Your task to perform on an android device: open app "Firefox Browser" (install if not already installed) Image 0: 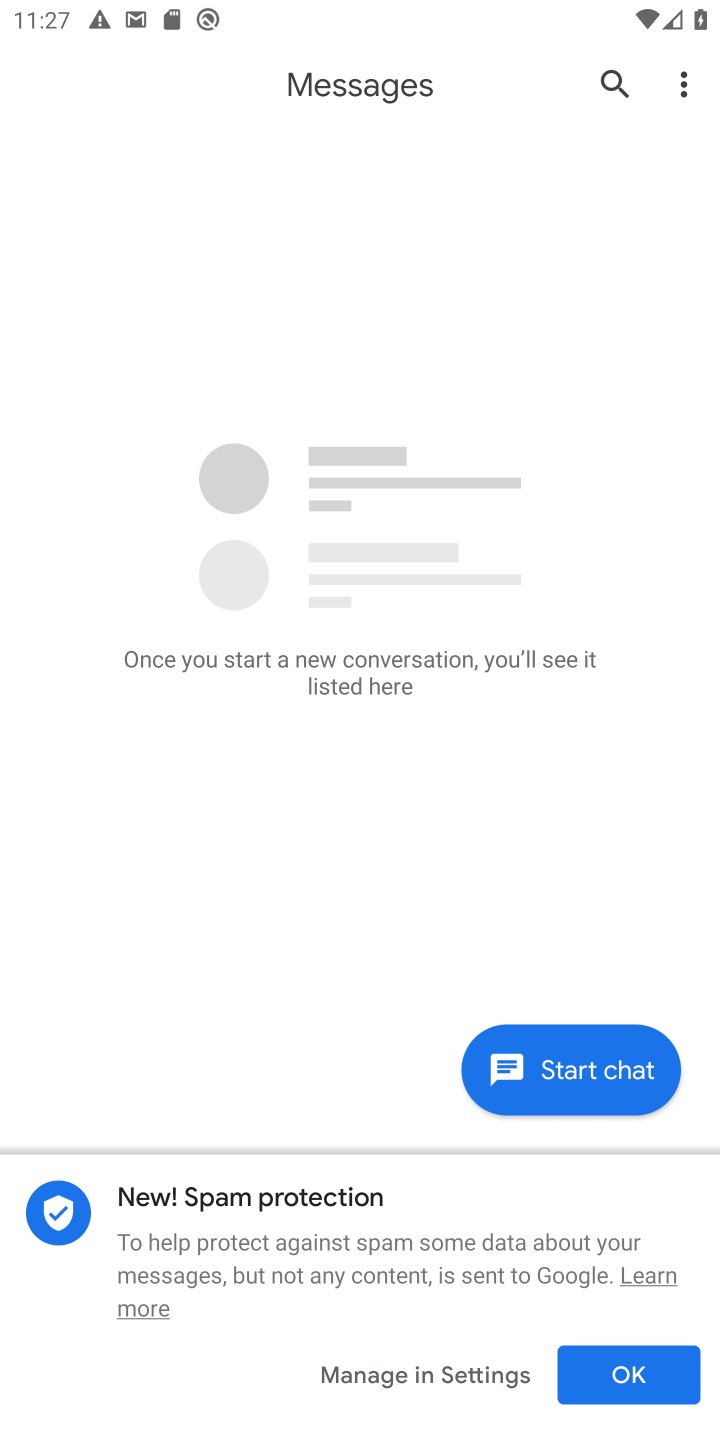
Step 0: press home button
Your task to perform on an android device: open app "Firefox Browser" (install if not already installed) Image 1: 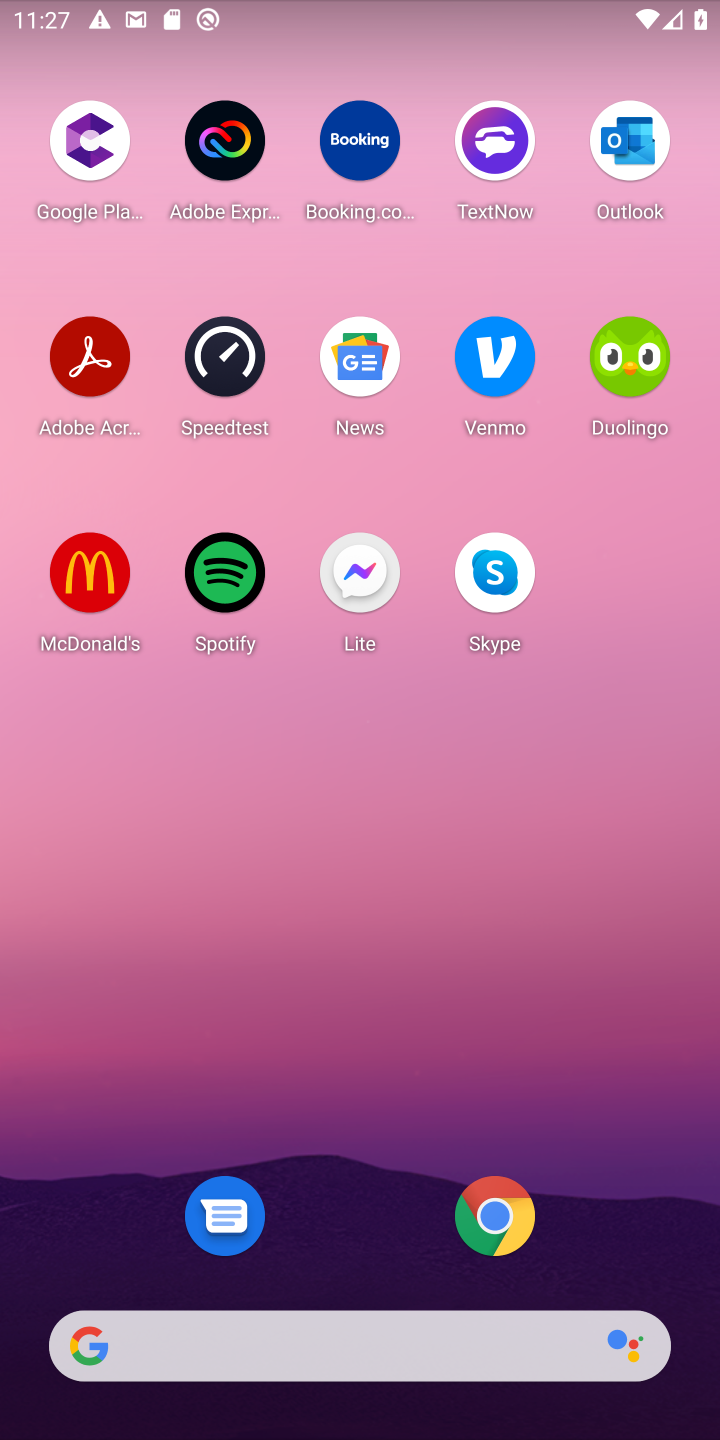
Step 1: drag from (261, 1339) to (321, 59)
Your task to perform on an android device: open app "Firefox Browser" (install if not already installed) Image 2: 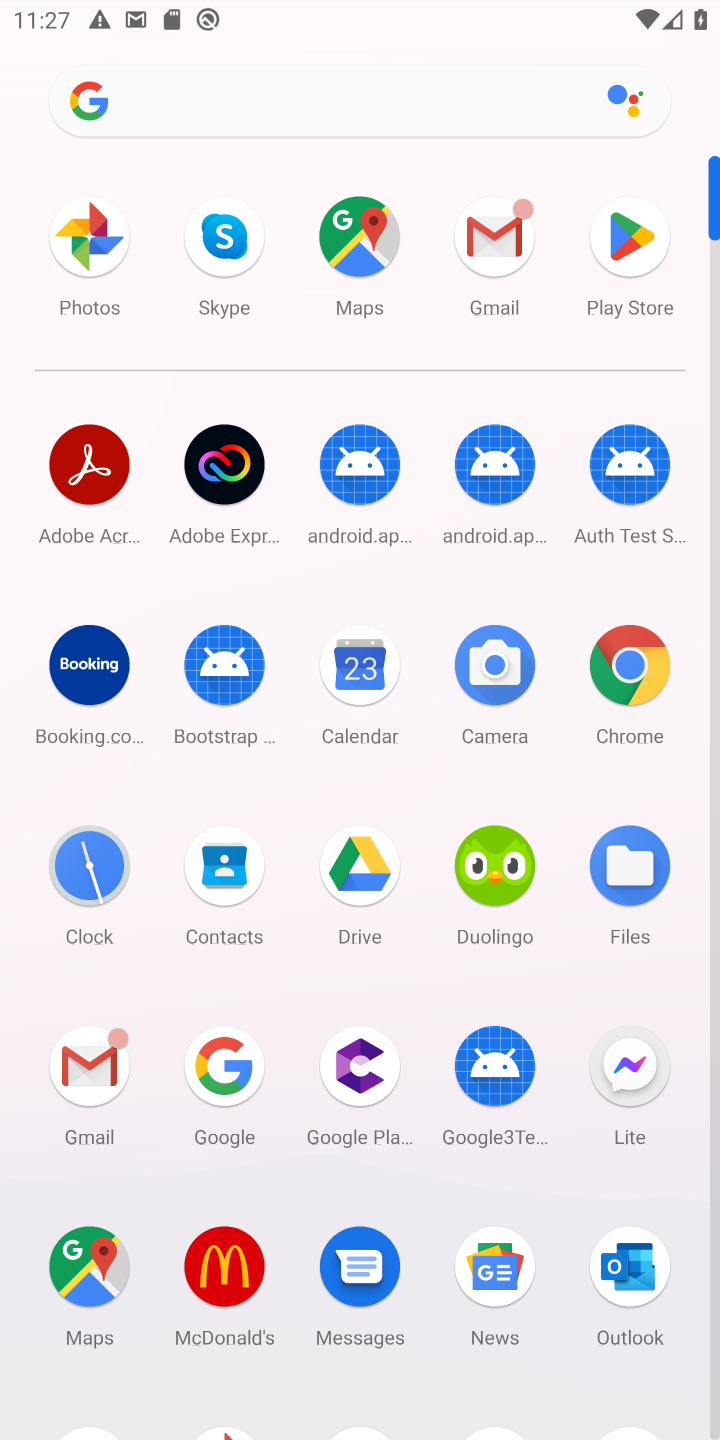
Step 2: click (633, 253)
Your task to perform on an android device: open app "Firefox Browser" (install if not already installed) Image 3: 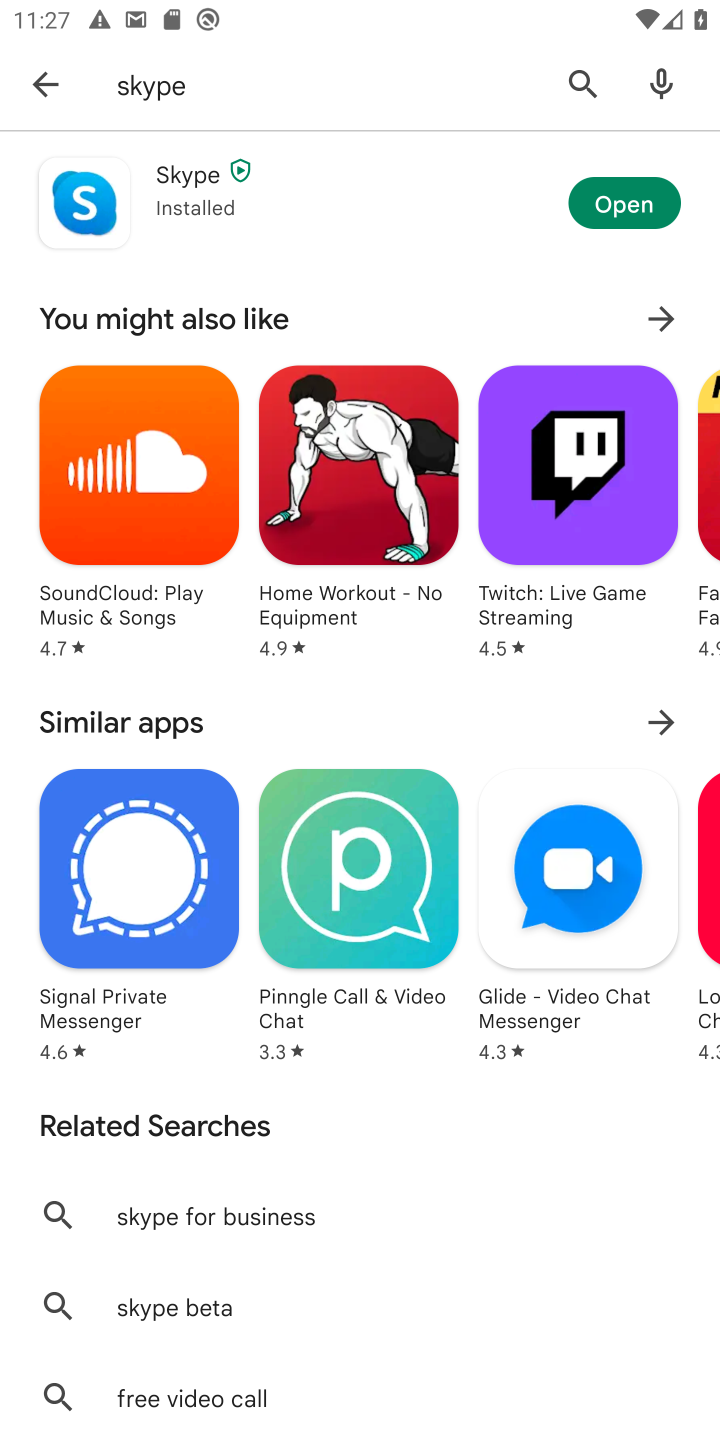
Step 3: press back button
Your task to perform on an android device: open app "Firefox Browser" (install if not already installed) Image 4: 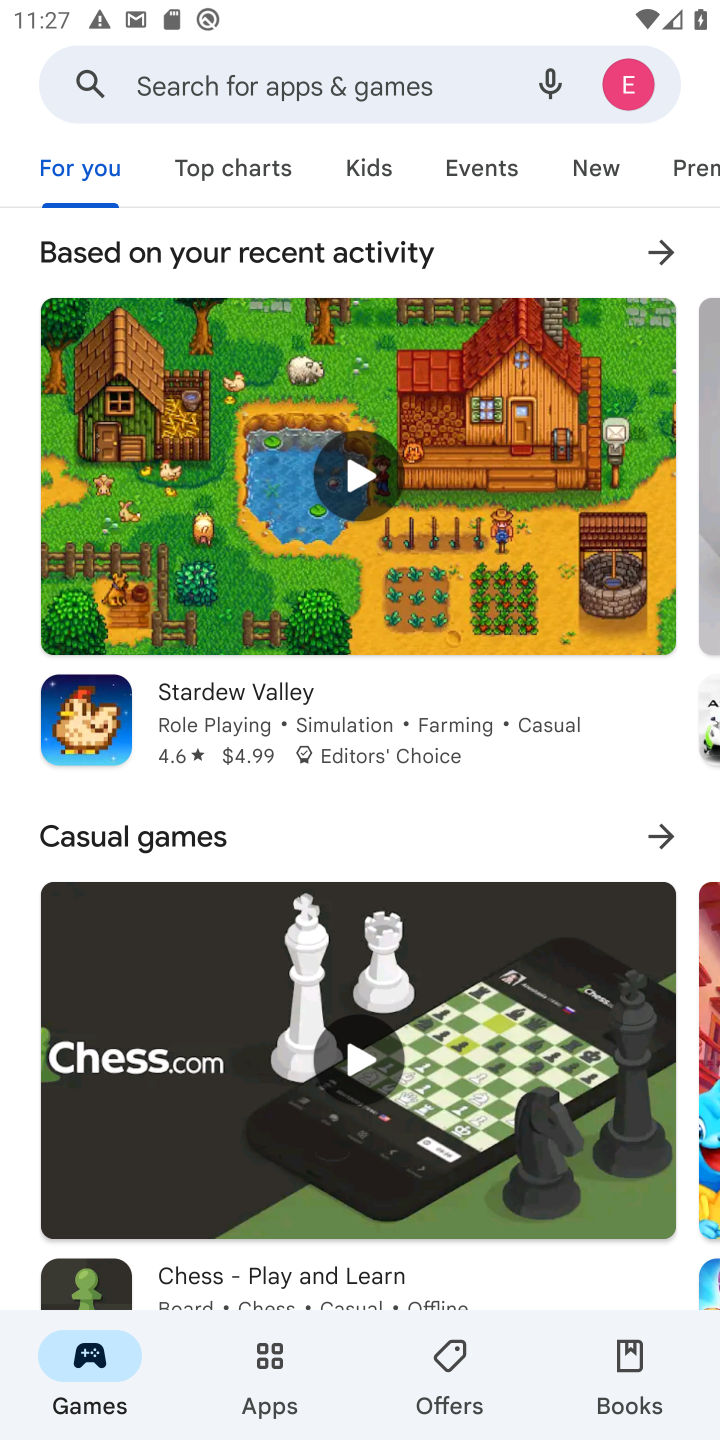
Step 4: click (352, 87)
Your task to perform on an android device: open app "Firefox Browser" (install if not already installed) Image 5: 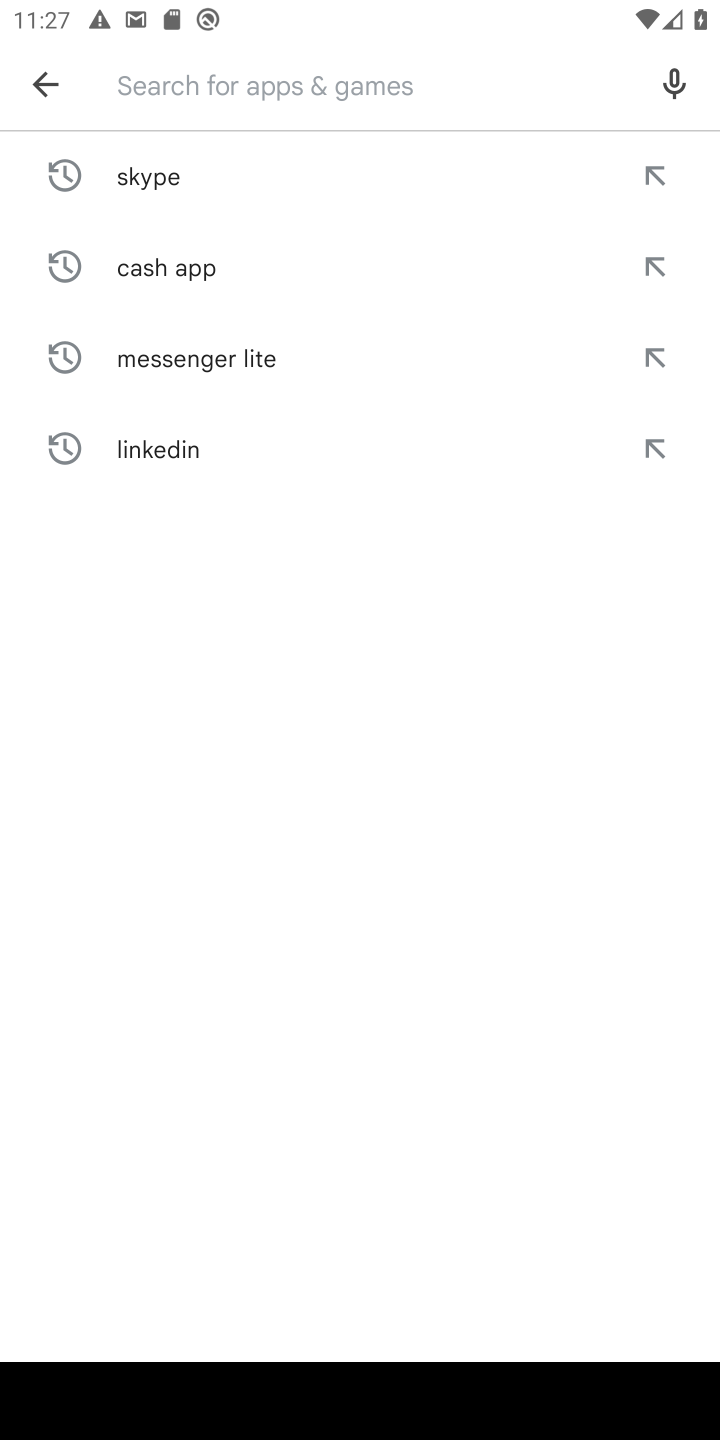
Step 5: type "Firefox Browser"
Your task to perform on an android device: open app "Firefox Browser" (install if not already installed) Image 6: 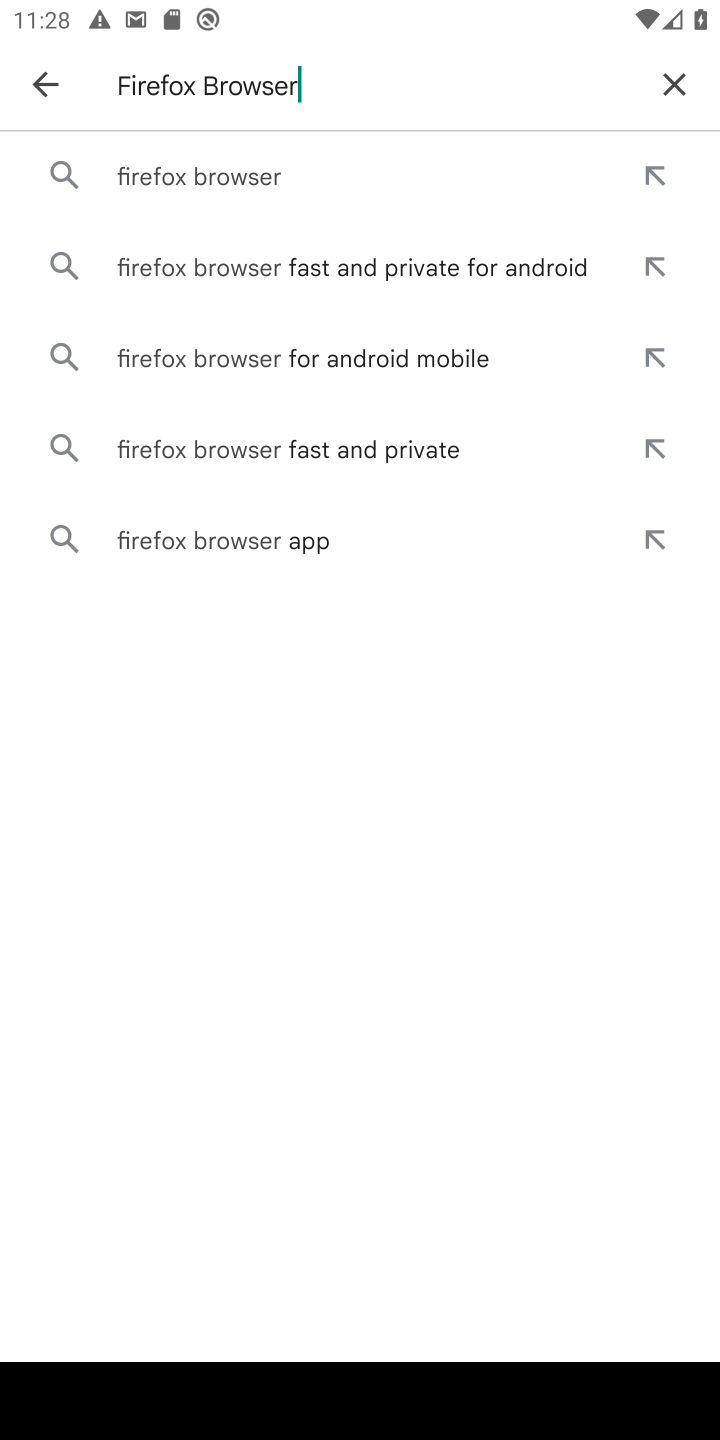
Step 6: click (235, 168)
Your task to perform on an android device: open app "Firefox Browser" (install if not already installed) Image 7: 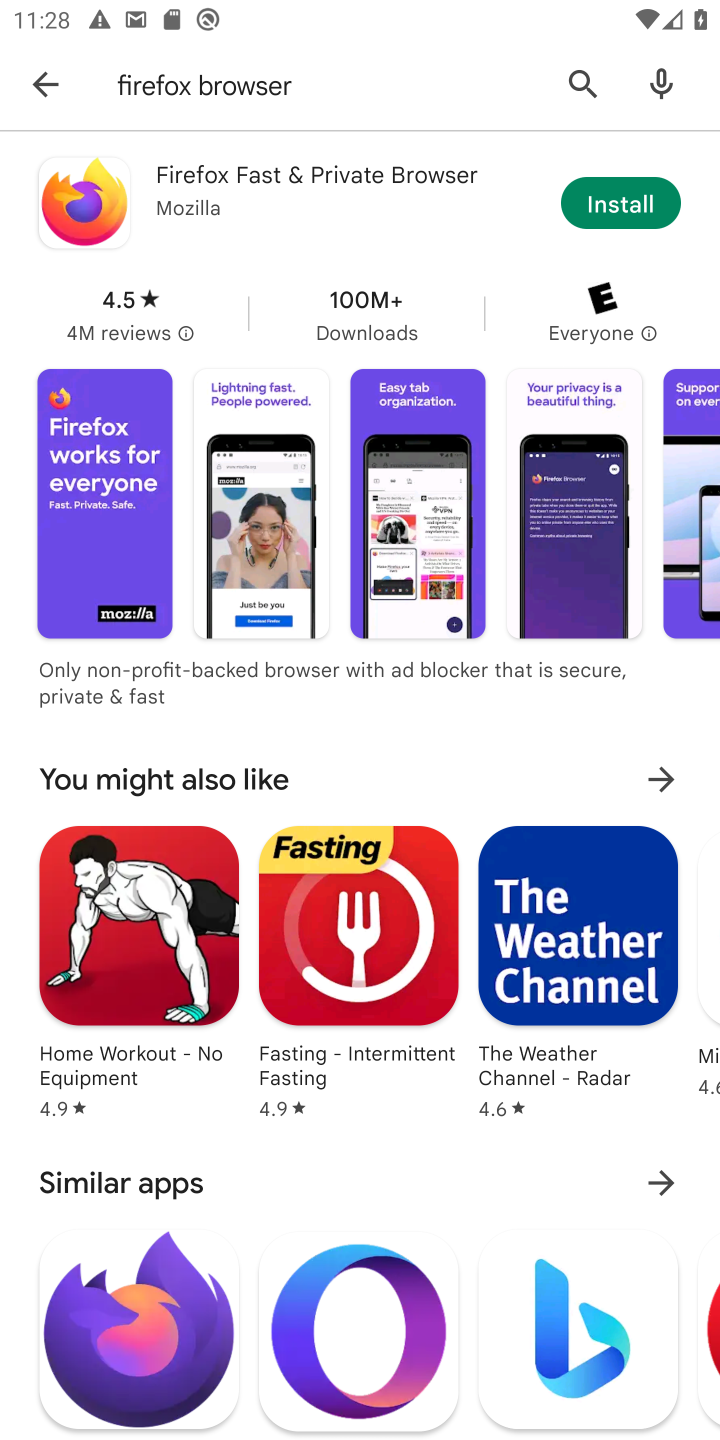
Step 7: click (615, 211)
Your task to perform on an android device: open app "Firefox Browser" (install if not already installed) Image 8: 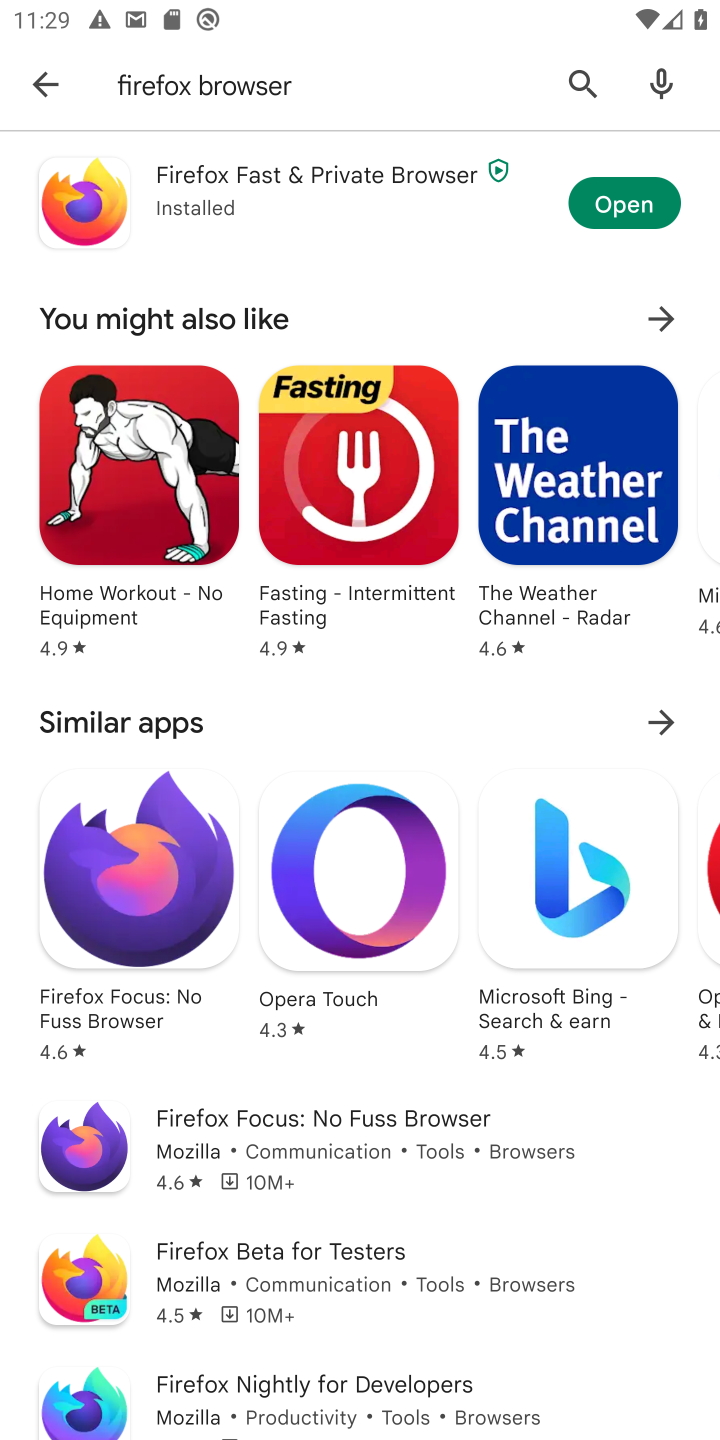
Step 8: click (639, 217)
Your task to perform on an android device: open app "Firefox Browser" (install if not already installed) Image 9: 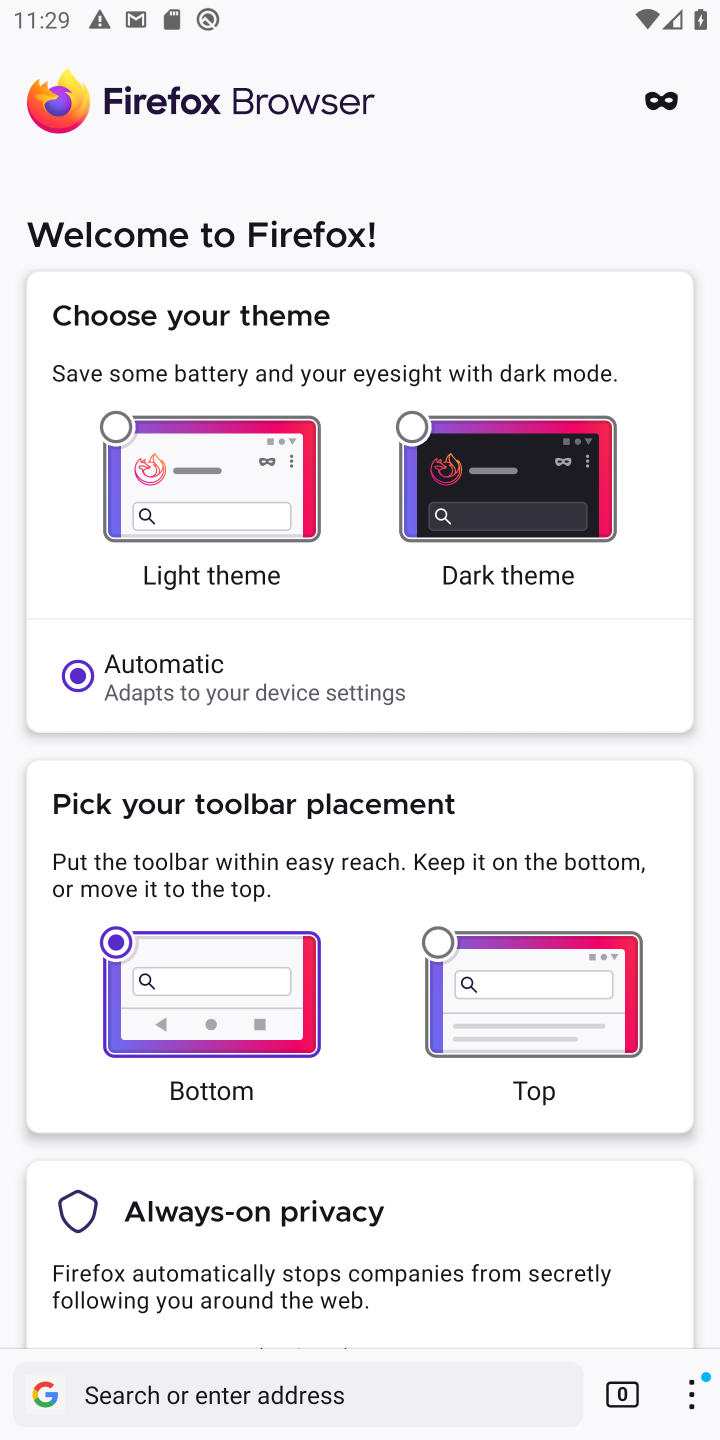
Step 9: task complete